Your task to perform on an android device: Is it going to rain this weekend? Image 0: 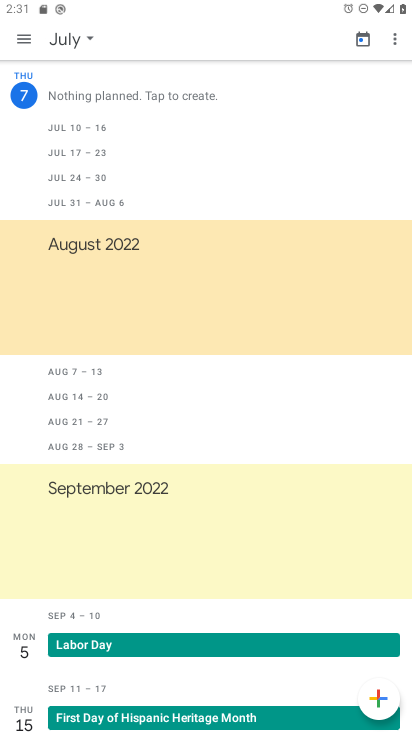
Step 0: press home button
Your task to perform on an android device: Is it going to rain this weekend? Image 1: 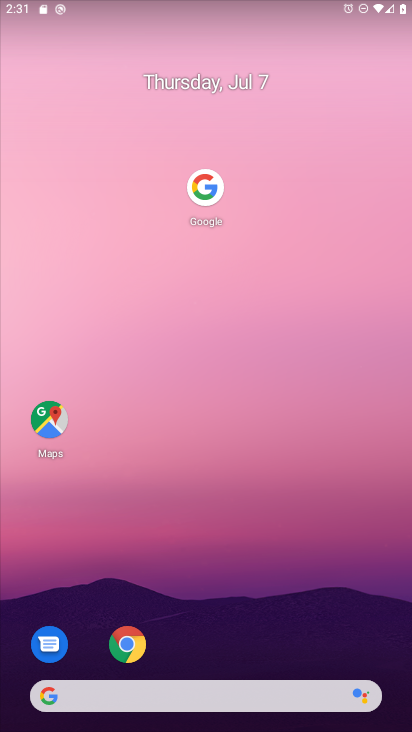
Step 1: click (210, 187)
Your task to perform on an android device: Is it going to rain this weekend? Image 2: 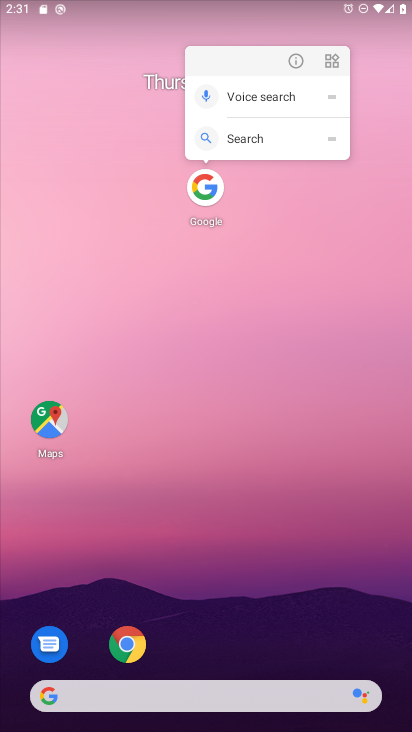
Step 2: drag from (205, 189) to (253, 417)
Your task to perform on an android device: Is it going to rain this weekend? Image 3: 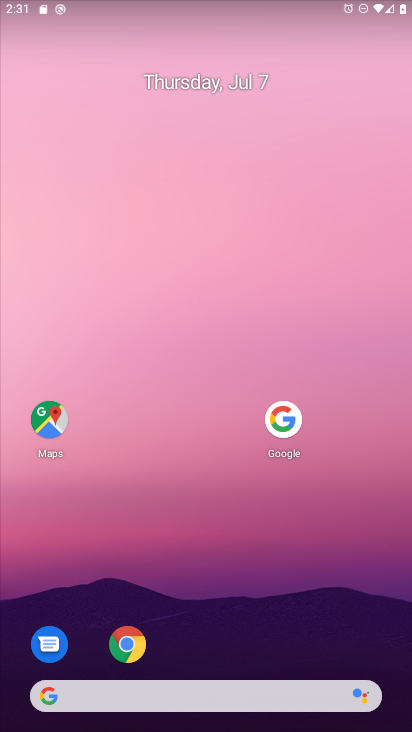
Step 3: click (285, 419)
Your task to perform on an android device: Is it going to rain this weekend? Image 4: 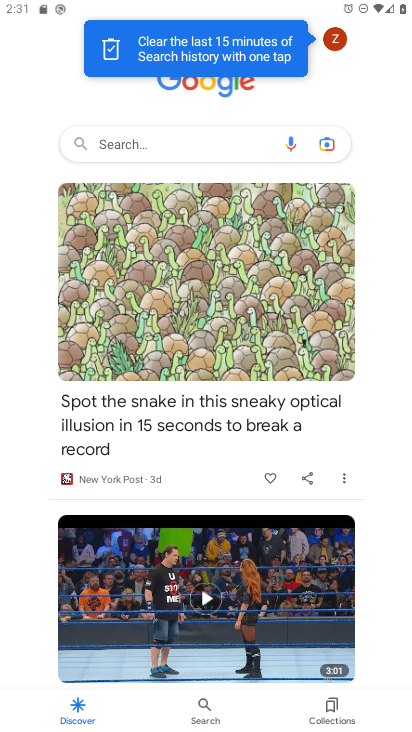
Step 4: click (198, 706)
Your task to perform on an android device: Is it going to rain this weekend? Image 5: 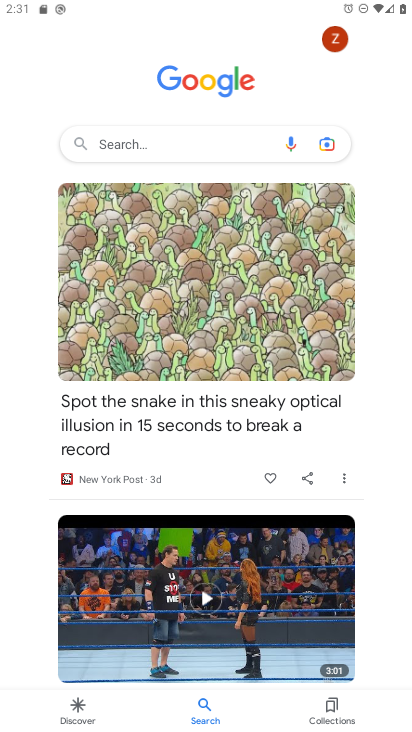
Step 5: click (198, 137)
Your task to perform on an android device: Is it going to rain this weekend? Image 6: 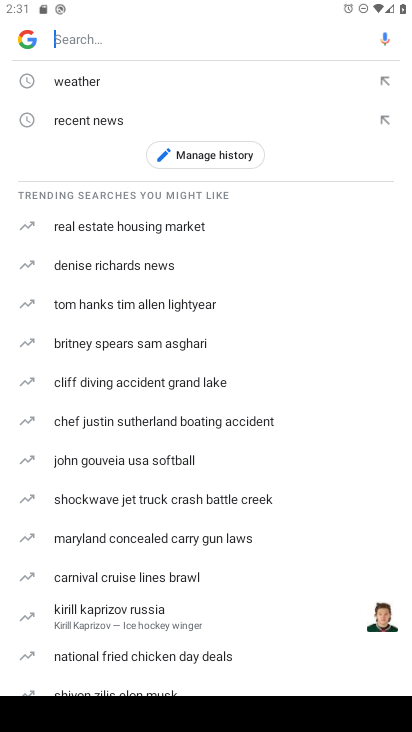
Step 6: type "Is it going to rain this weekend"
Your task to perform on an android device: Is it going to rain this weekend? Image 7: 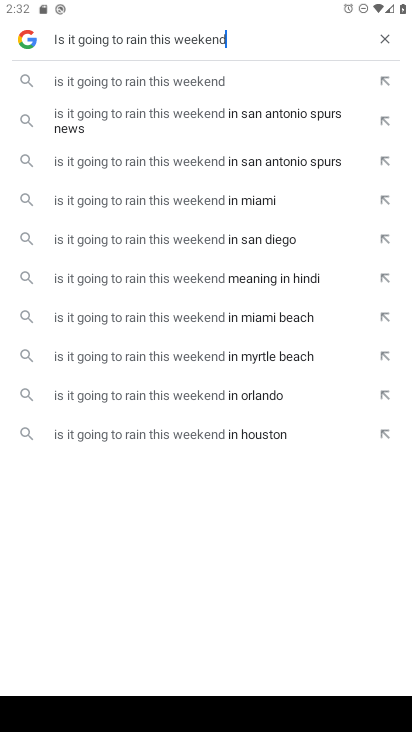
Step 7: click (146, 83)
Your task to perform on an android device: Is it going to rain this weekend? Image 8: 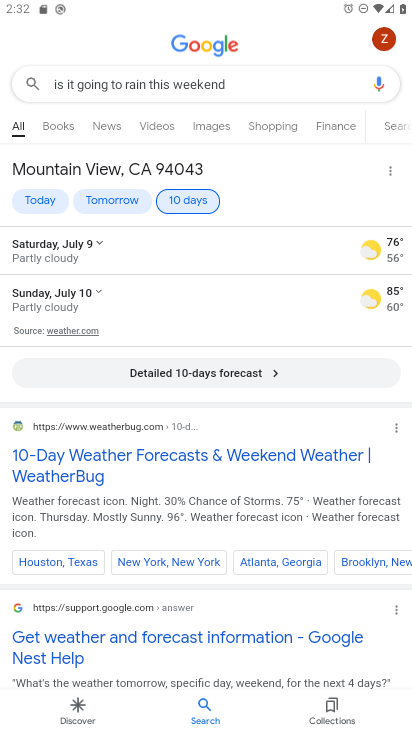
Step 8: task complete